Your task to perform on an android device: Search for flights from Zurich to Buenos aires Image 0: 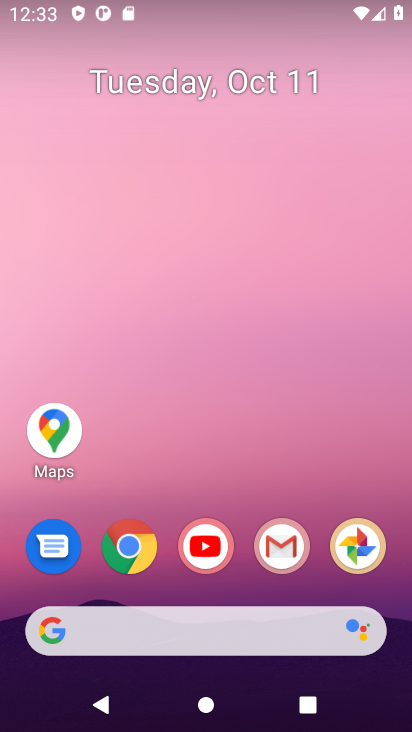
Step 0: click (132, 548)
Your task to perform on an android device: Search for flights from Zurich to Buenos aires Image 1: 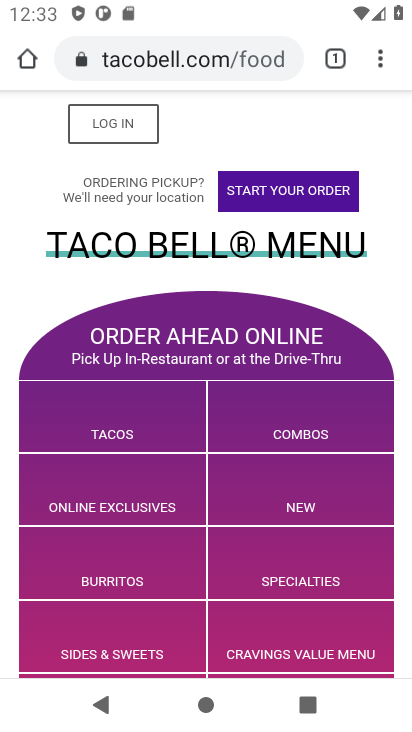
Step 1: click (141, 63)
Your task to perform on an android device: Search for flights from Zurich to Buenos aires Image 2: 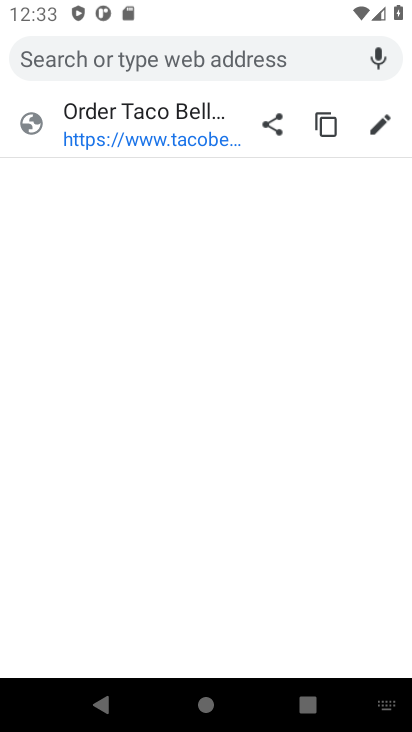
Step 2: type "flights from Zurich to Buenos Aires"
Your task to perform on an android device: Search for flights from Zurich to Buenos aires Image 3: 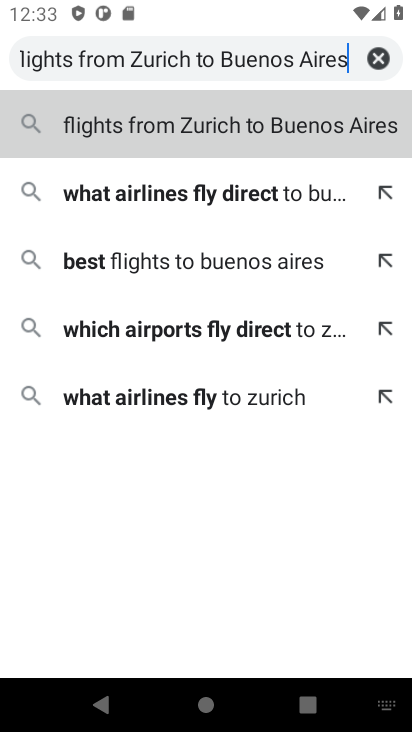
Step 3: press enter
Your task to perform on an android device: Search for flights from Zurich to Buenos aires Image 4: 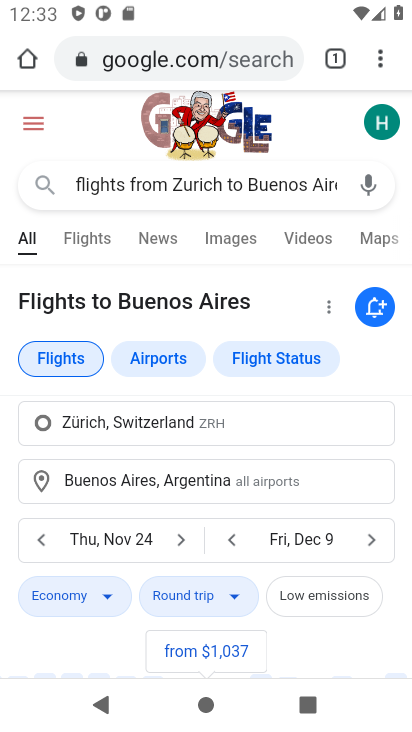
Step 4: drag from (244, 432) to (310, 226)
Your task to perform on an android device: Search for flights from Zurich to Buenos aires Image 5: 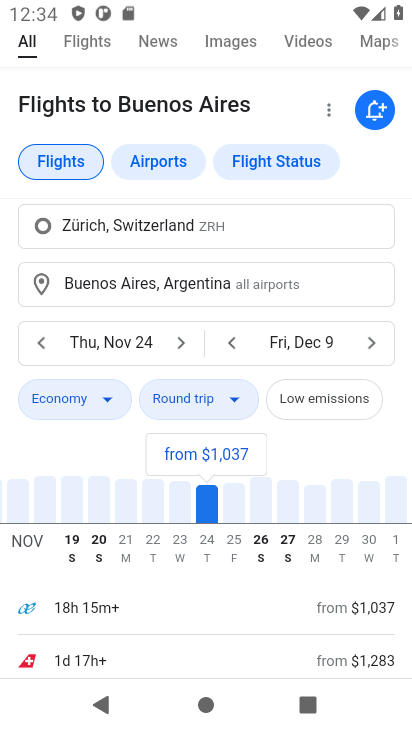
Step 5: drag from (304, 529) to (312, 235)
Your task to perform on an android device: Search for flights from Zurich to Buenos aires Image 6: 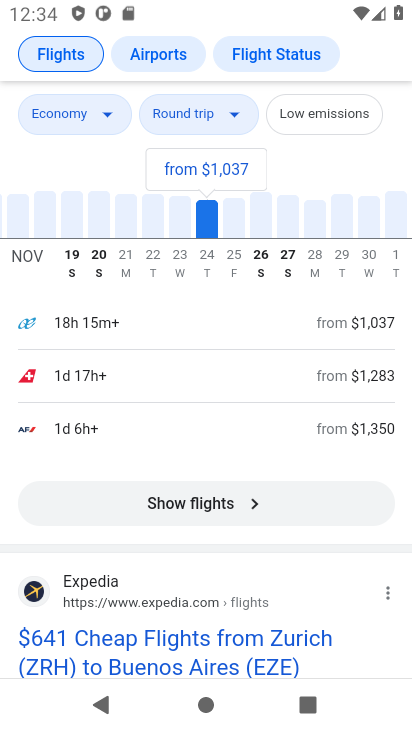
Step 6: click (220, 500)
Your task to perform on an android device: Search for flights from Zurich to Buenos aires Image 7: 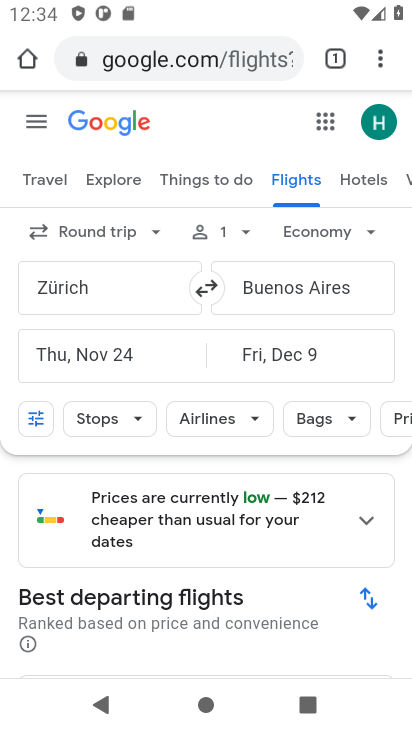
Step 7: task complete